Your task to perform on an android device: Do I have any events tomorrow? Image 0: 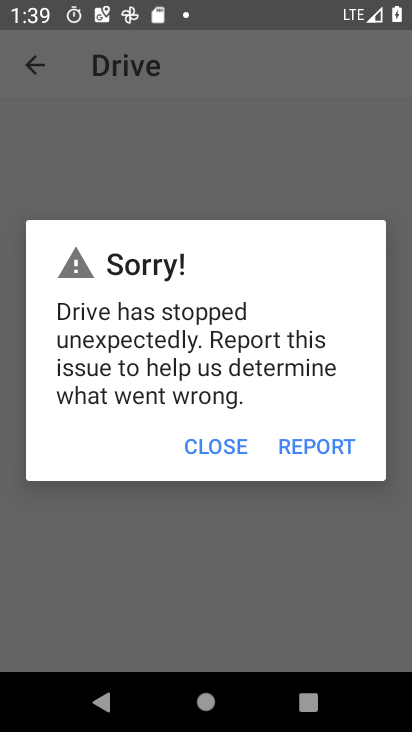
Step 0: press home button
Your task to perform on an android device: Do I have any events tomorrow? Image 1: 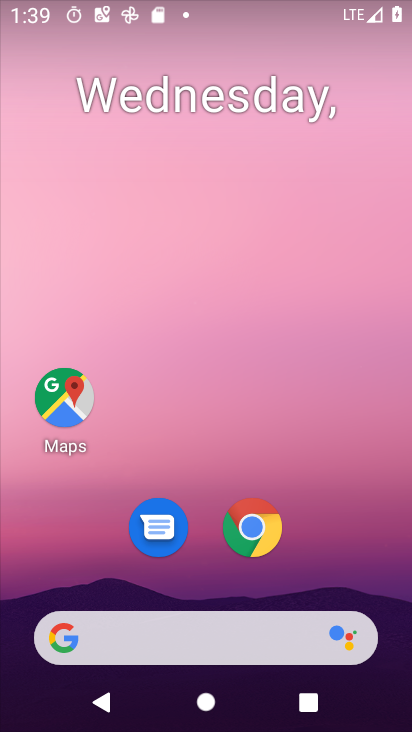
Step 1: drag from (305, 569) to (256, 90)
Your task to perform on an android device: Do I have any events tomorrow? Image 2: 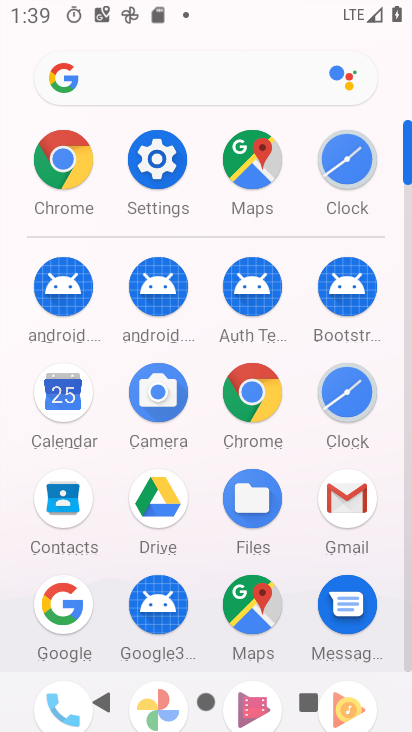
Step 2: click (68, 376)
Your task to perform on an android device: Do I have any events tomorrow? Image 3: 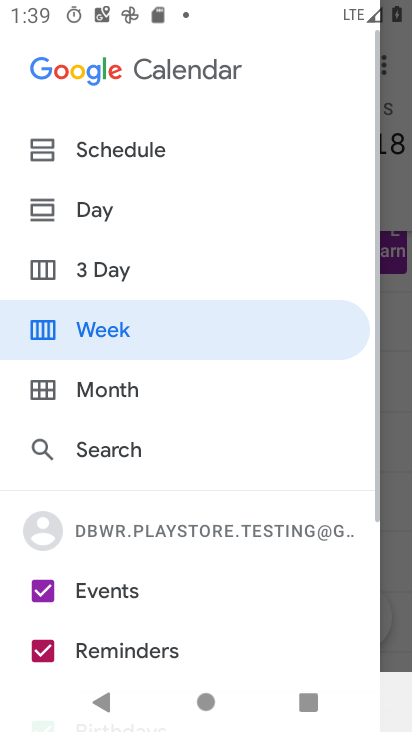
Step 3: click (392, 368)
Your task to perform on an android device: Do I have any events tomorrow? Image 4: 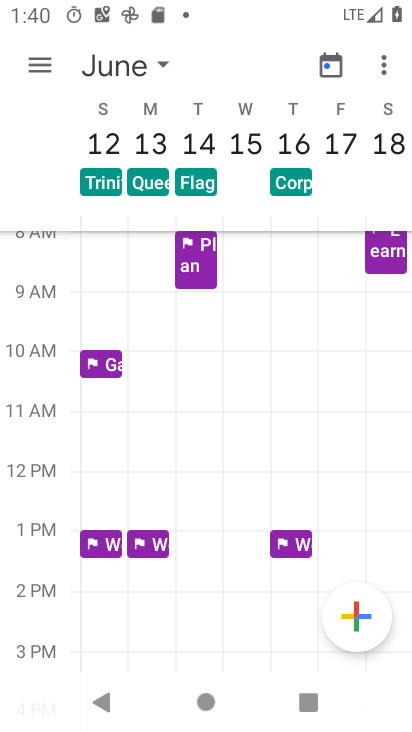
Step 4: click (159, 60)
Your task to perform on an android device: Do I have any events tomorrow? Image 5: 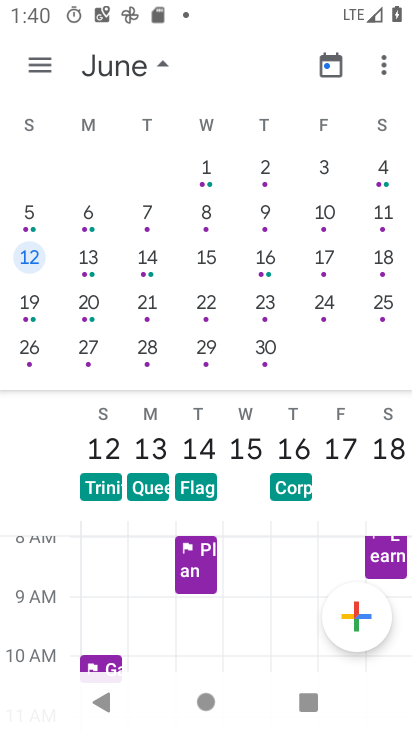
Step 5: drag from (105, 281) to (410, 284)
Your task to perform on an android device: Do I have any events tomorrow? Image 6: 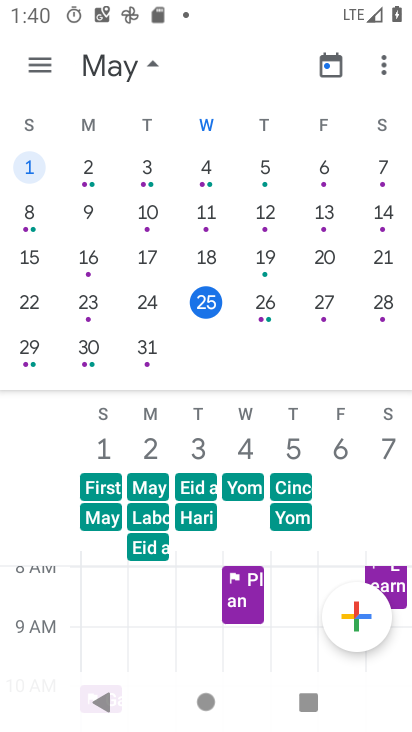
Step 6: click (268, 298)
Your task to perform on an android device: Do I have any events tomorrow? Image 7: 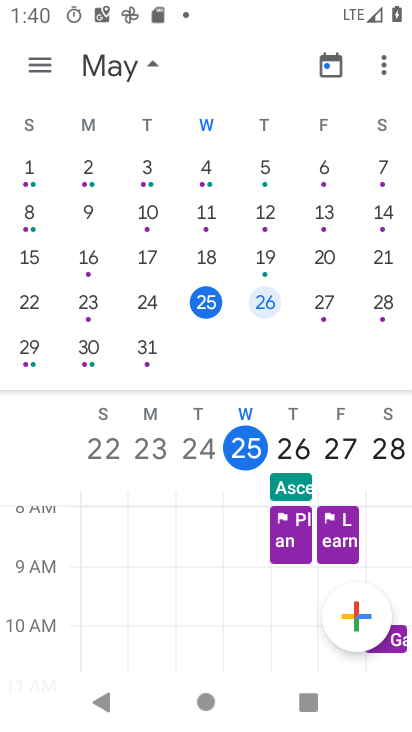
Step 7: task complete